Your task to perform on an android device: remove spam from my inbox in the gmail app Image 0: 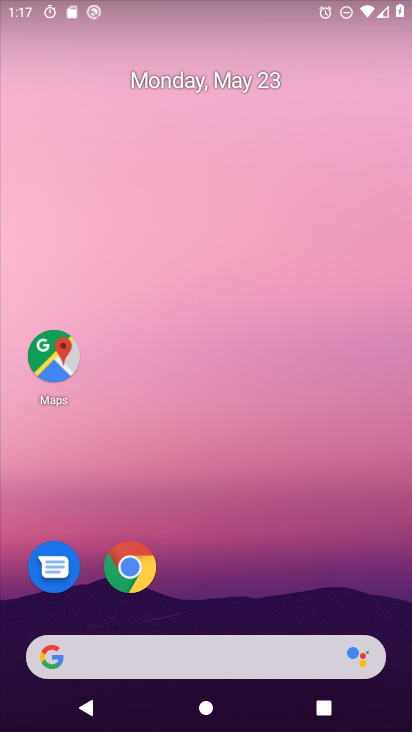
Step 0: drag from (181, 602) to (271, 73)
Your task to perform on an android device: remove spam from my inbox in the gmail app Image 1: 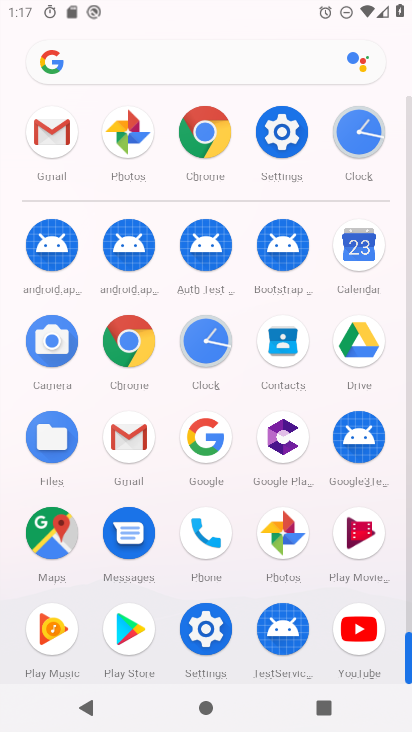
Step 1: click (74, 112)
Your task to perform on an android device: remove spam from my inbox in the gmail app Image 2: 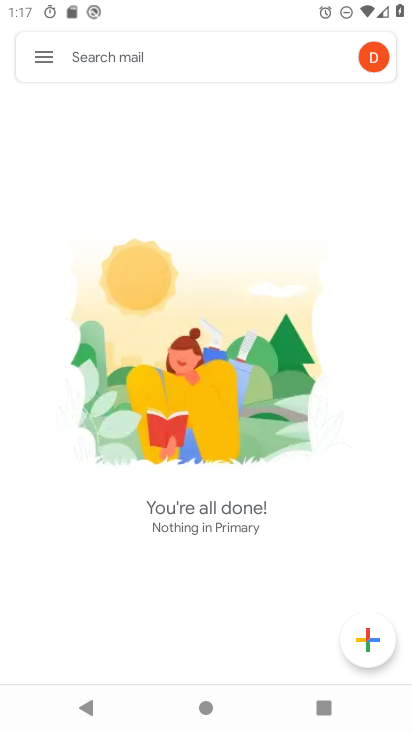
Step 2: click (52, 78)
Your task to perform on an android device: remove spam from my inbox in the gmail app Image 3: 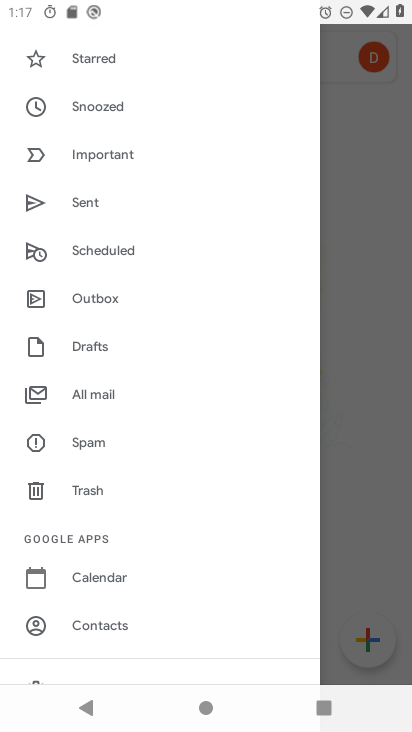
Step 3: click (93, 427)
Your task to perform on an android device: remove spam from my inbox in the gmail app Image 4: 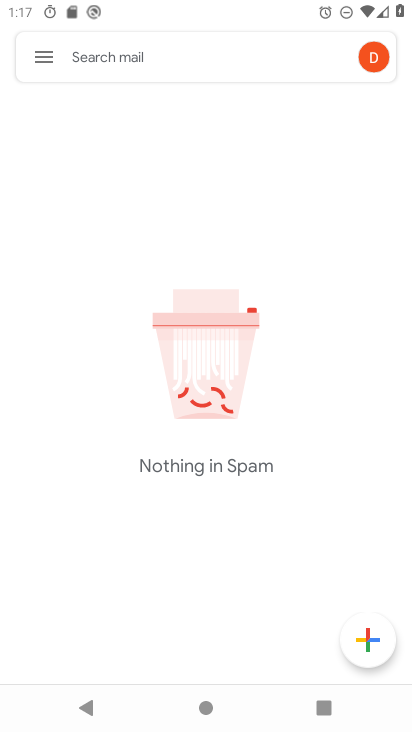
Step 4: task complete